Your task to perform on an android device: Open notification settings Image 0: 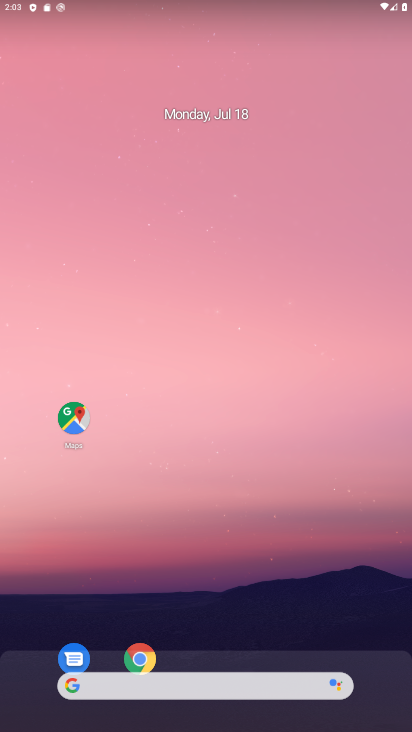
Step 0: drag from (221, 671) to (244, 128)
Your task to perform on an android device: Open notification settings Image 1: 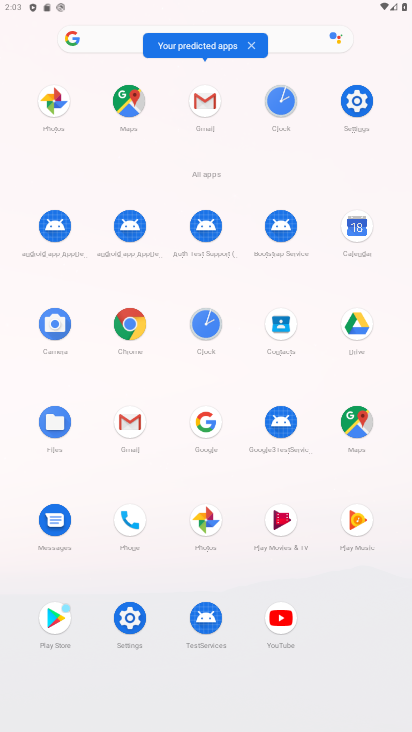
Step 1: click (128, 627)
Your task to perform on an android device: Open notification settings Image 2: 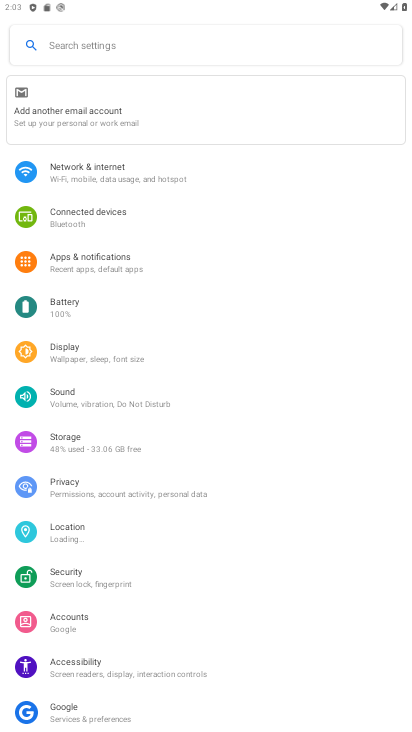
Step 2: click (138, 274)
Your task to perform on an android device: Open notification settings Image 3: 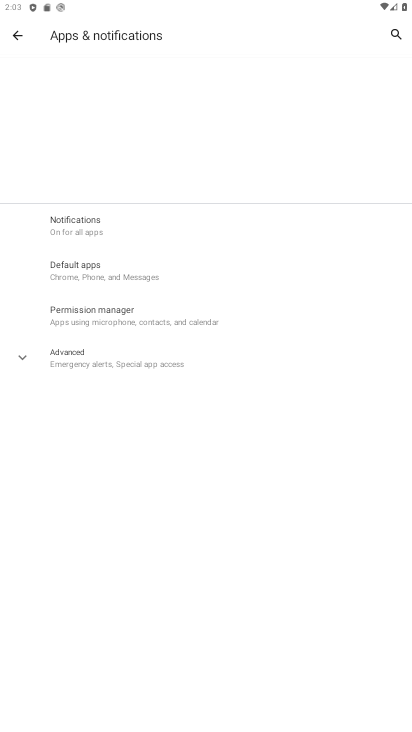
Step 3: click (134, 238)
Your task to perform on an android device: Open notification settings Image 4: 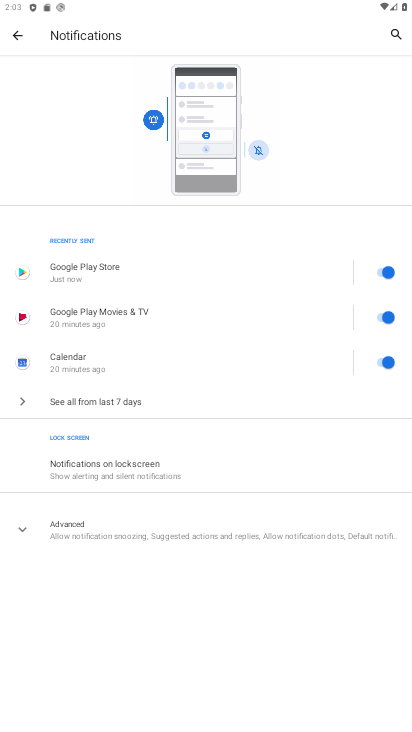
Step 4: task complete